Your task to perform on an android device: change your default location settings in chrome Image 0: 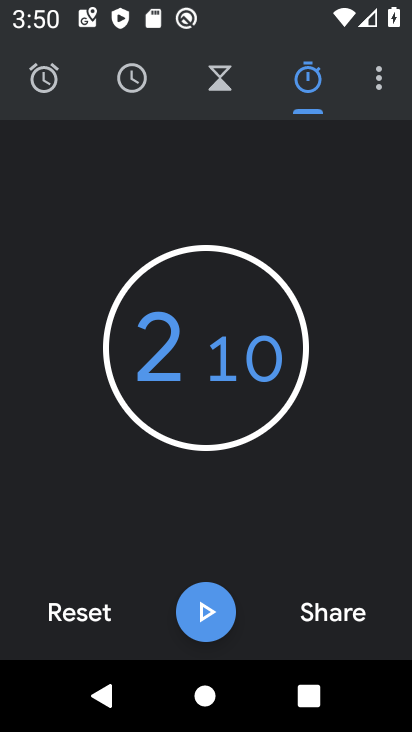
Step 0: press home button
Your task to perform on an android device: change your default location settings in chrome Image 1: 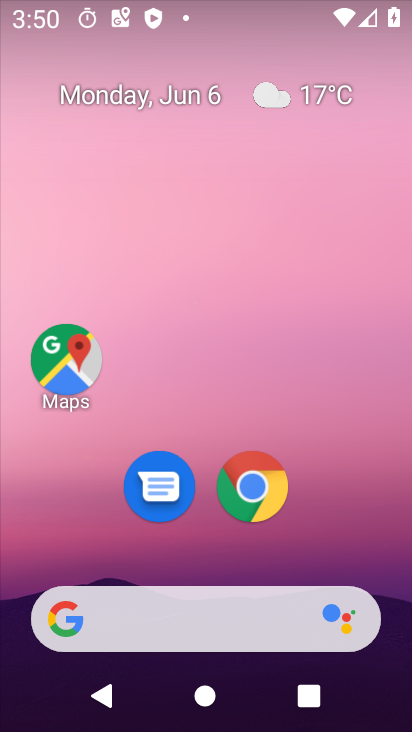
Step 1: click (259, 492)
Your task to perform on an android device: change your default location settings in chrome Image 2: 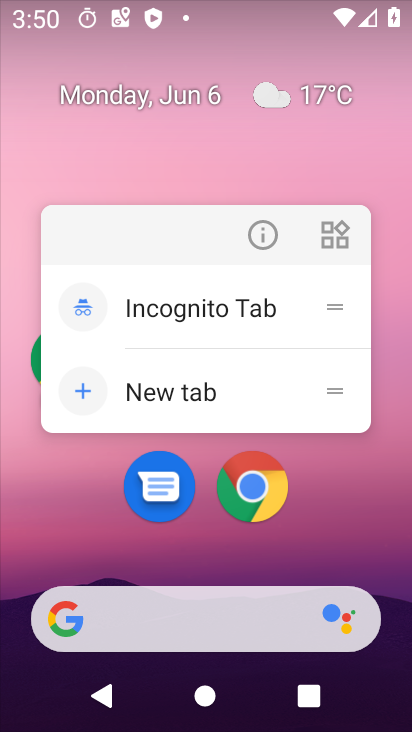
Step 2: click (253, 493)
Your task to perform on an android device: change your default location settings in chrome Image 3: 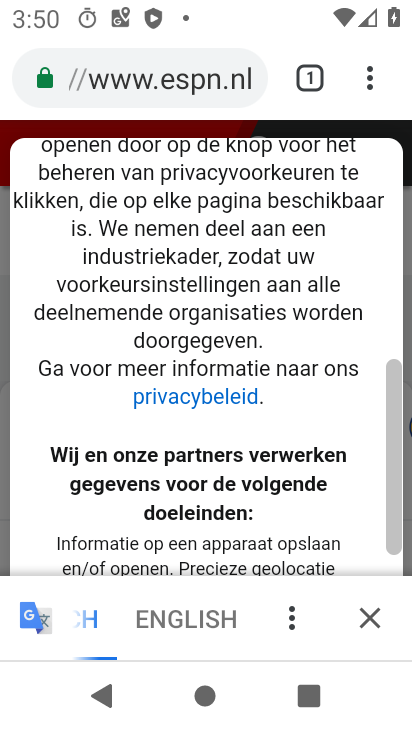
Step 3: drag from (377, 67) to (283, 565)
Your task to perform on an android device: change your default location settings in chrome Image 4: 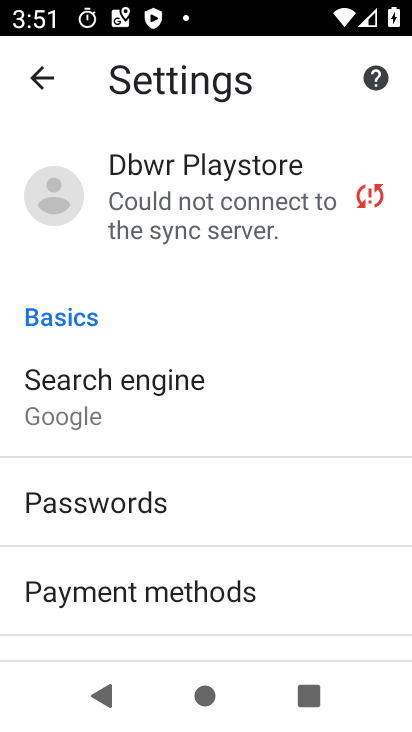
Step 4: drag from (278, 524) to (285, 71)
Your task to perform on an android device: change your default location settings in chrome Image 5: 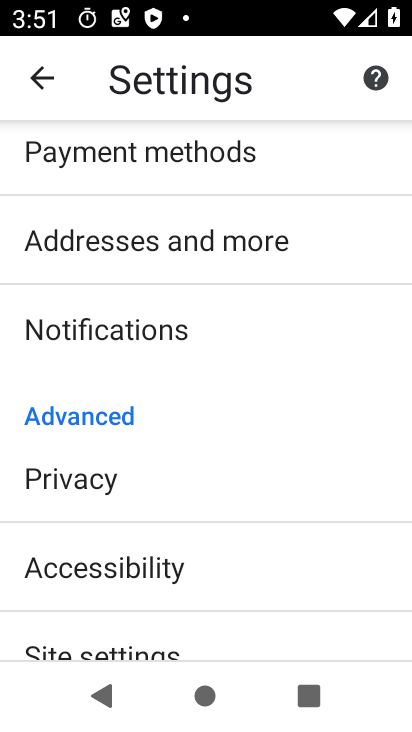
Step 5: drag from (149, 499) to (165, 696)
Your task to perform on an android device: change your default location settings in chrome Image 6: 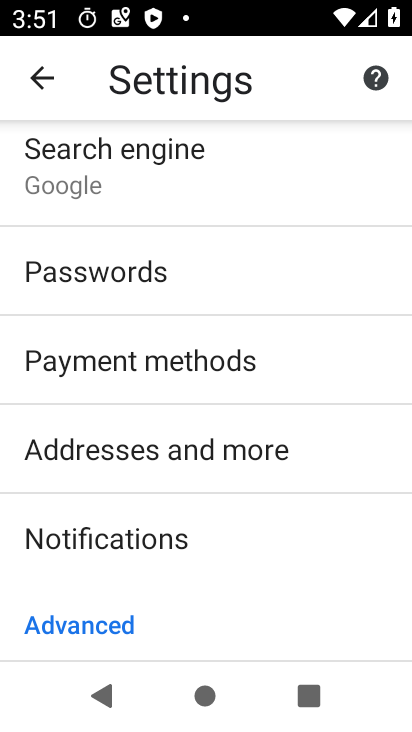
Step 6: drag from (195, 210) to (214, 139)
Your task to perform on an android device: change your default location settings in chrome Image 7: 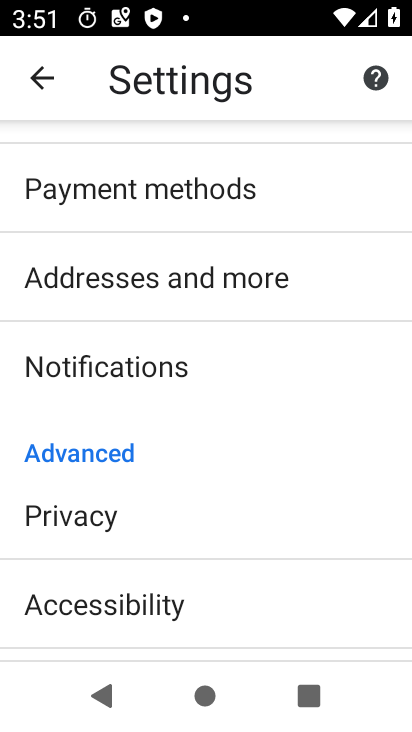
Step 7: drag from (232, 541) to (271, 160)
Your task to perform on an android device: change your default location settings in chrome Image 8: 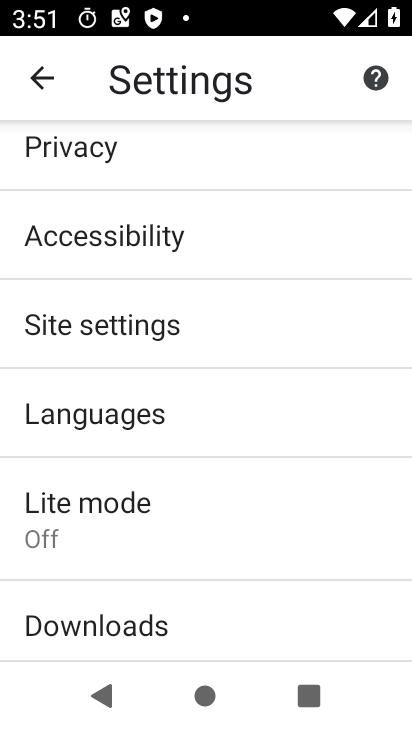
Step 8: drag from (237, 532) to (207, 388)
Your task to perform on an android device: change your default location settings in chrome Image 9: 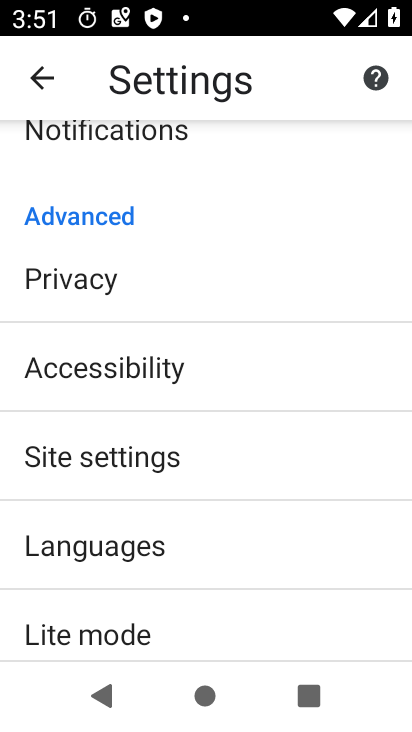
Step 9: click (146, 469)
Your task to perform on an android device: change your default location settings in chrome Image 10: 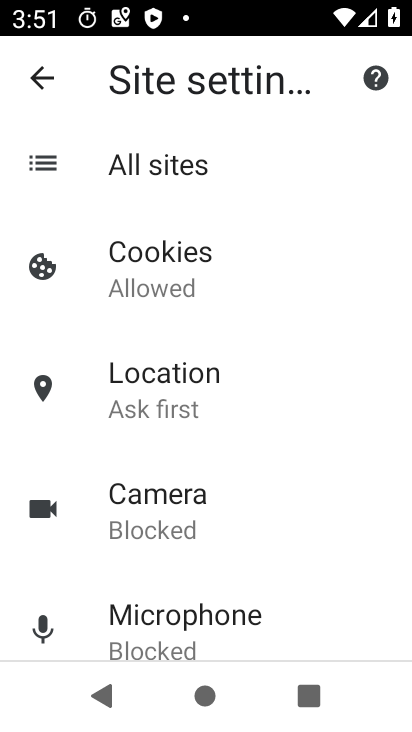
Step 10: click (171, 389)
Your task to perform on an android device: change your default location settings in chrome Image 11: 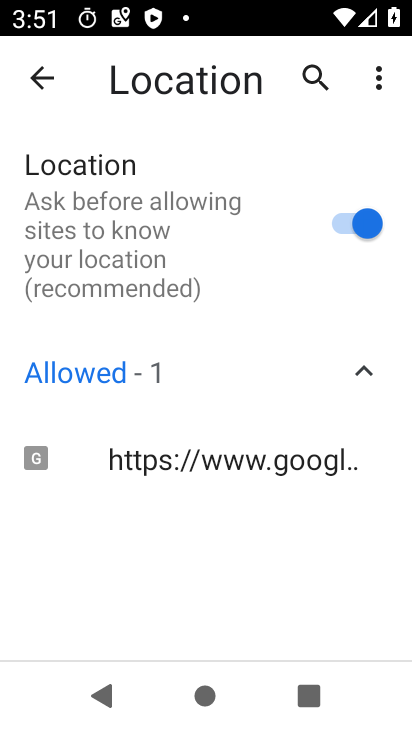
Step 11: click (356, 206)
Your task to perform on an android device: change your default location settings in chrome Image 12: 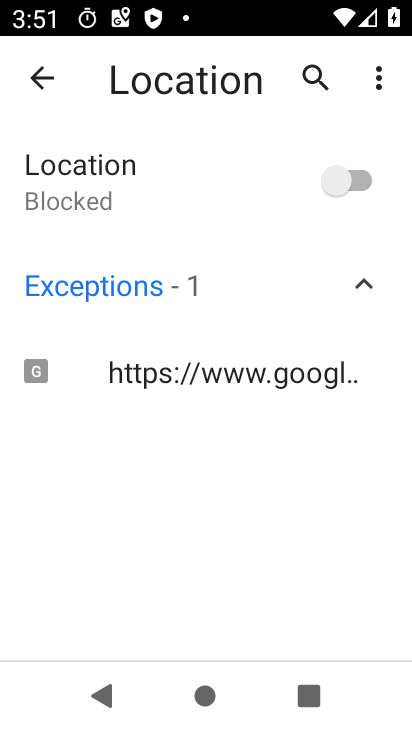
Step 12: task complete